Your task to perform on an android device: Open Google Maps and go to "Timeline" Image 0: 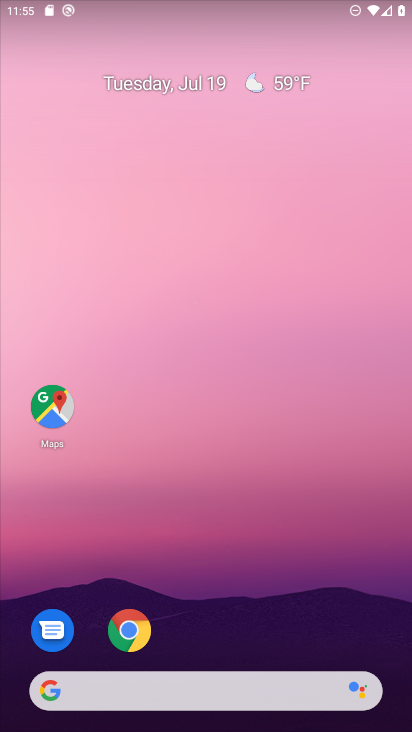
Step 0: drag from (263, 646) to (286, 45)
Your task to perform on an android device: Open Google Maps and go to "Timeline" Image 1: 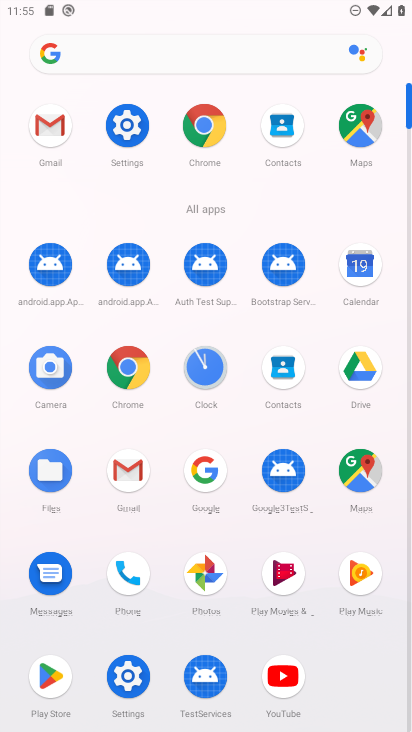
Step 1: click (358, 464)
Your task to perform on an android device: Open Google Maps and go to "Timeline" Image 2: 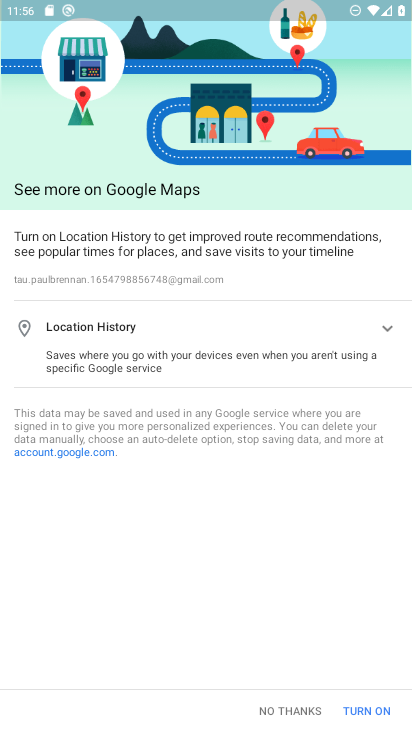
Step 2: press back button
Your task to perform on an android device: Open Google Maps and go to "Timeline" Image 3: 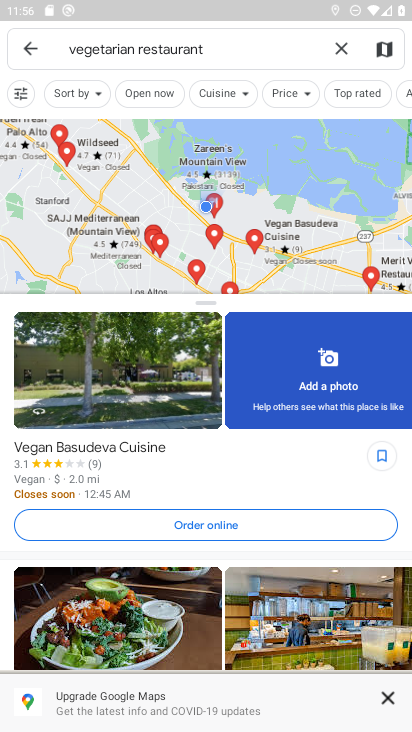
Step 3: press back button
Your task to perform on an android device: Open Google Maps and go to "Timeline" Image 4: 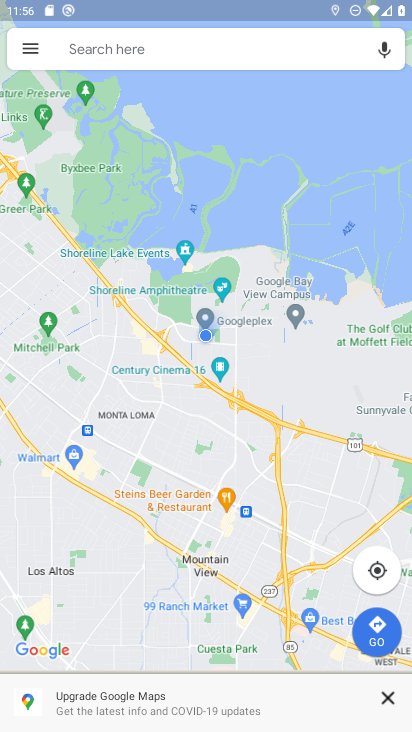
Step 4: click (29, 51)
Your task to perform on an android device: Open Google Maps and go to "Timeline" Image 5: 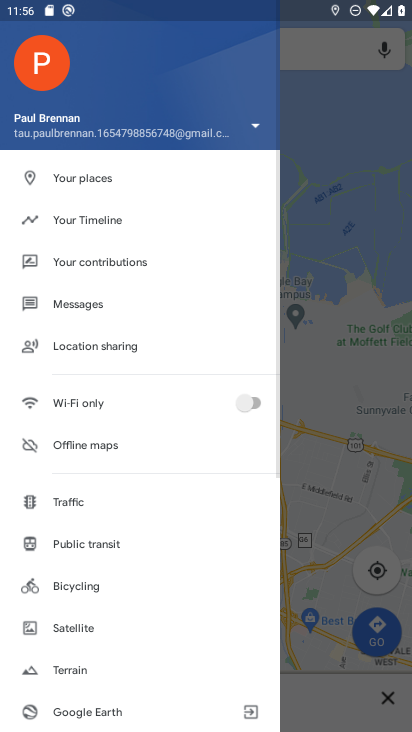
Step 5: click (101, 218)
Your task to perform on an android device: Open Google Maps and go to "Timeline" Image 6: 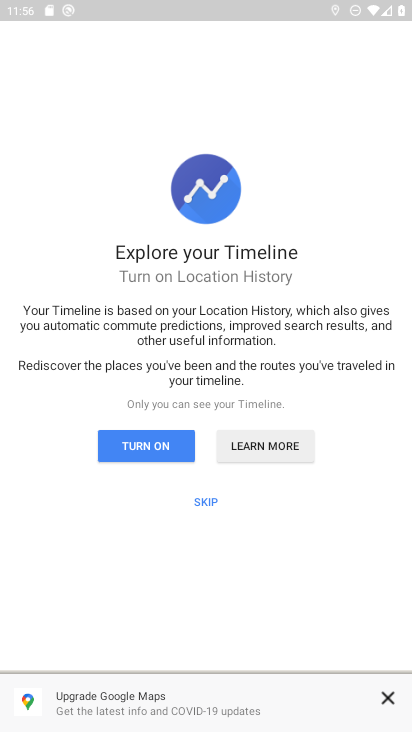
Step 6: click (199, 495)
Your task to perform on an android device: Open Google Maps and go to "Timeline" Image 7: 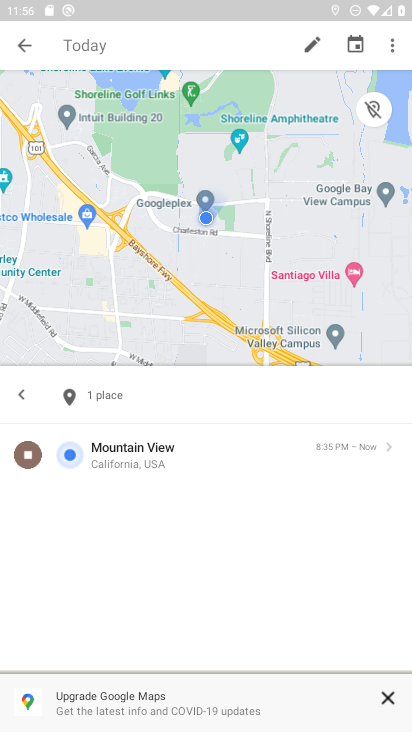
Step 7: task complete